Your task to perform on an android device: What is the recent news? Image 0: 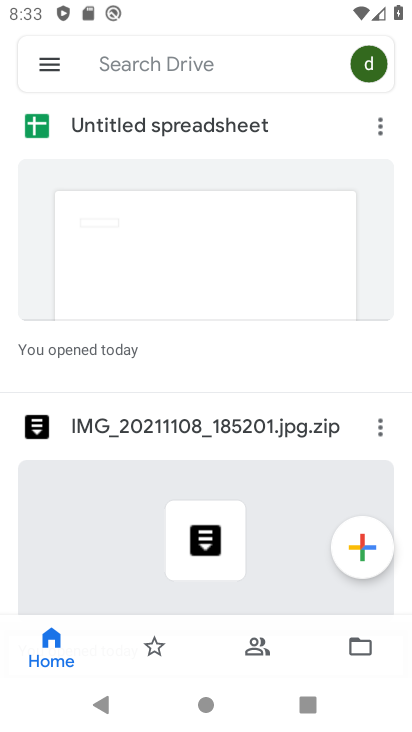
Step 0: press home button
Your task to perform on an android device: What is the recent news? Image 1: 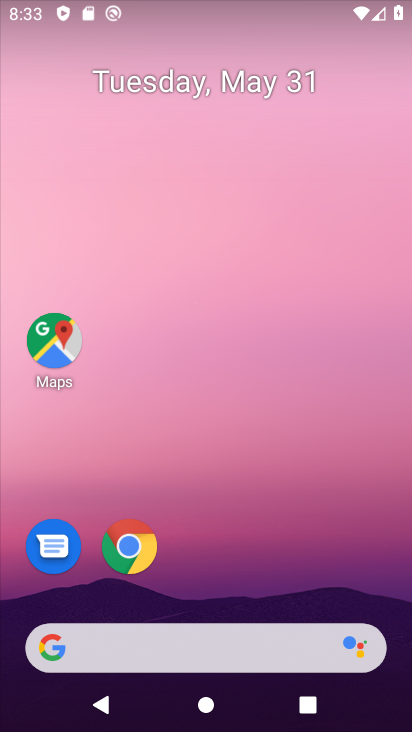
Step 1: task complete